Your task to perform on an android device: turn on bluetooth scan Image 0: 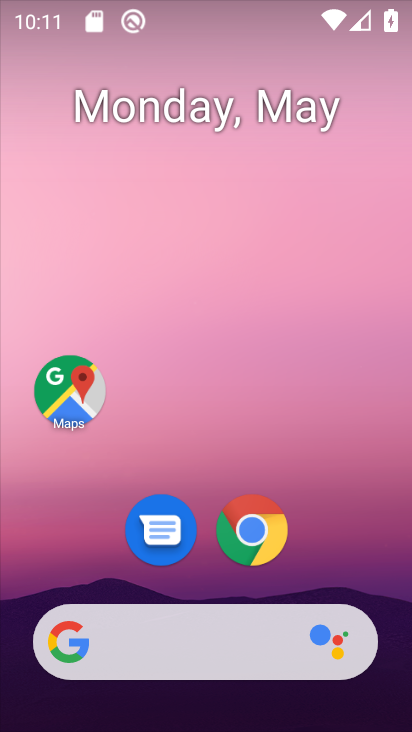
Step 0: drag from (187, 660) to (153, 193)
Your task to perform on an android device: turn on bluetooth scan Image 1: 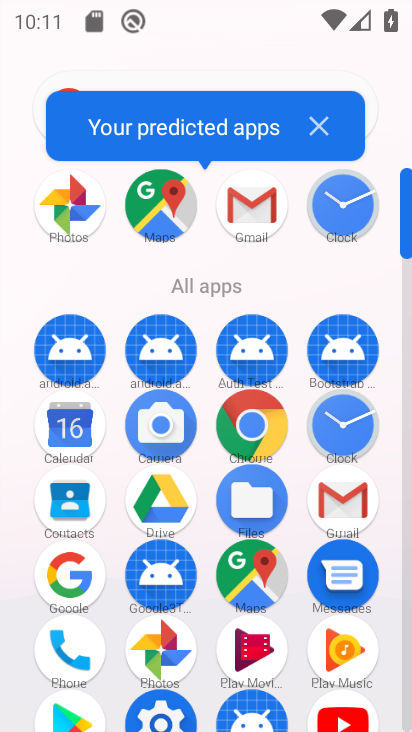
Step 1: click (161, 708)
Your task to perform on an android device: turn on bluetooth scan Image 2: 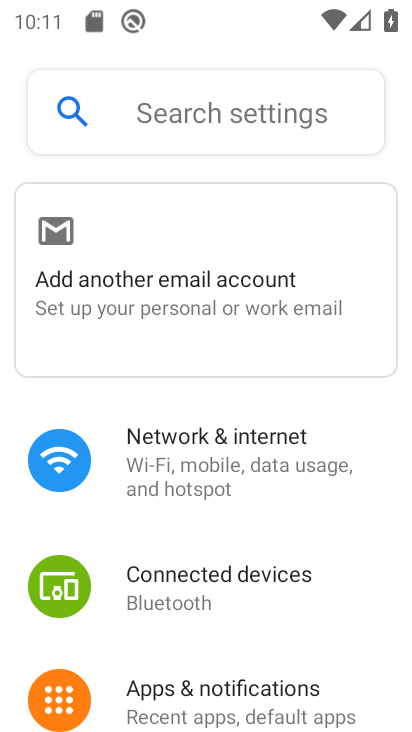
Step 2: drag from (214, 655) to (158, 182)
Your task to perform on an android device: turn on bluetooth scan Image 3: 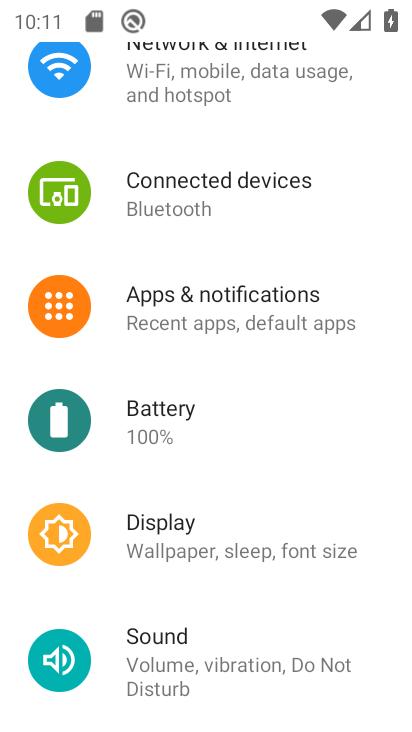
Step 3: drag from (214, 662) to (172, 153)
Your task to perform on an android device: turn on bluetooth scan Image 4: 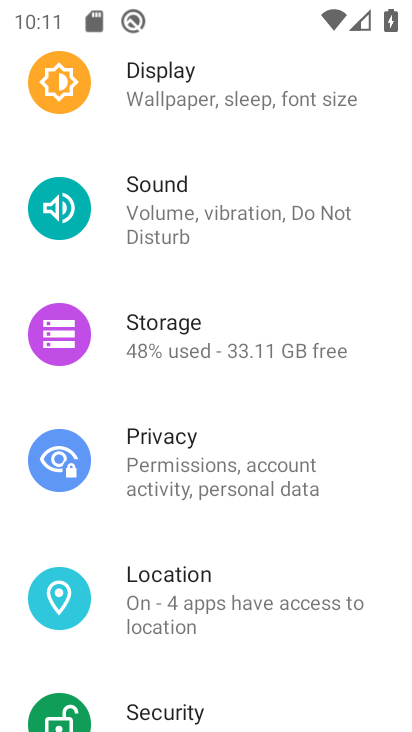
Step 4: click (160, 602)
Your task to perform on an android device: turn on bluetooth scan Image 5: 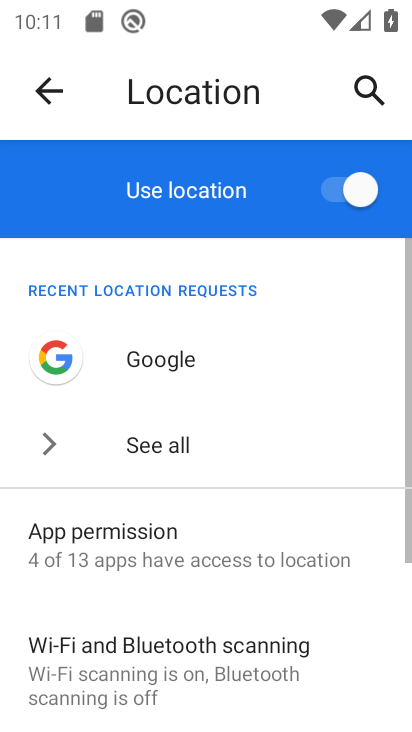
Step 5: click (198, 690)
Your task to perform on an android device: turn on bluetooth scan Image 6: 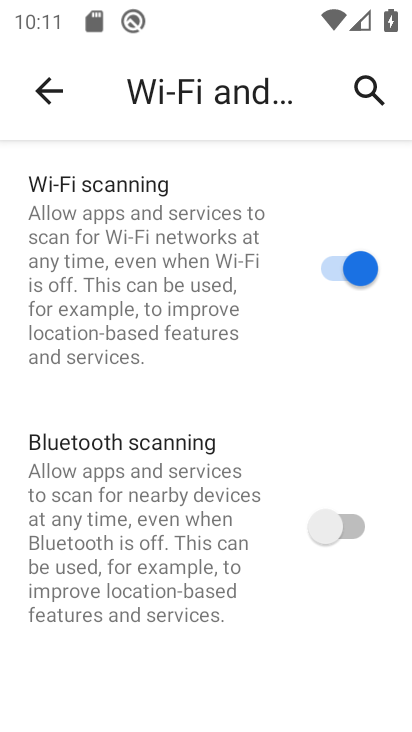
Step 6: click (347, 530)
Your task to perform on an android device: turn on bluetooth scan Image 7: 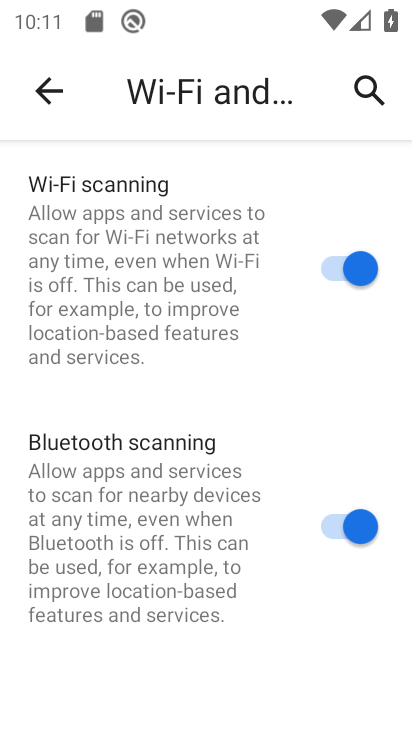
Step 7: task complete